Your task to perform on an android device: change the clock display to analog Image 0: 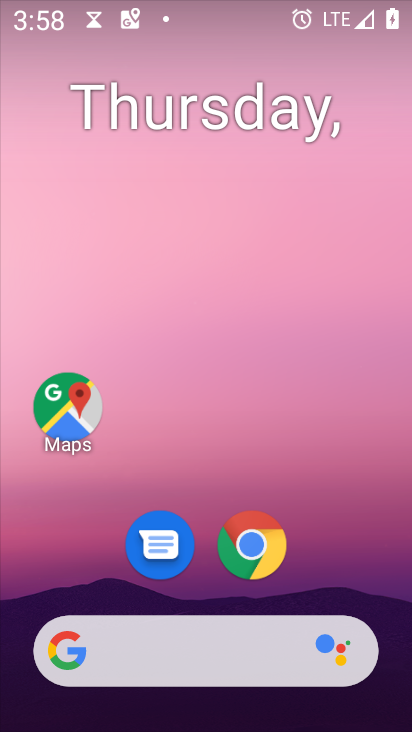
Step 0: drag from (335, 547) to (308, 36)
Your task to perform on an android device: change the clock display to analog Image 1: 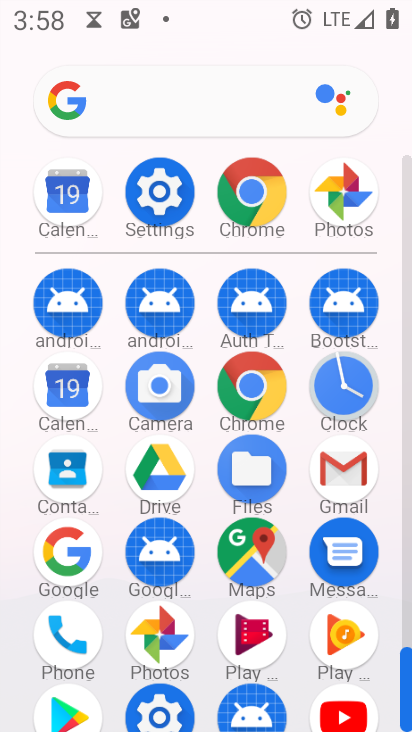
Step 1: click (339, 395)
Your task to perform on an android device: change the clock display to analog Image 2: 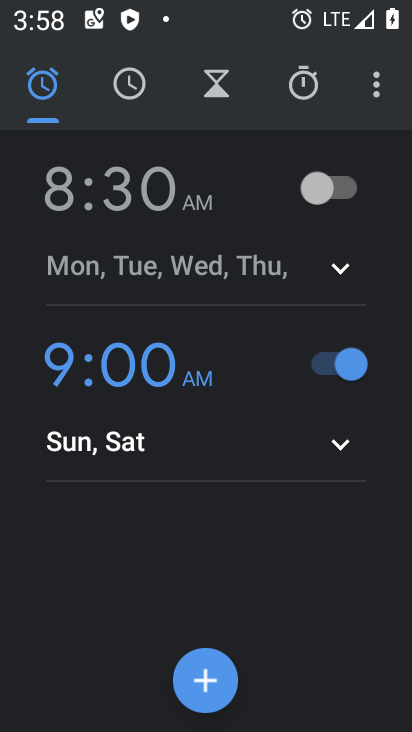
Step 2: click (372, 89)
Your task to perform on an android device: change the clock display to analog Image 3: 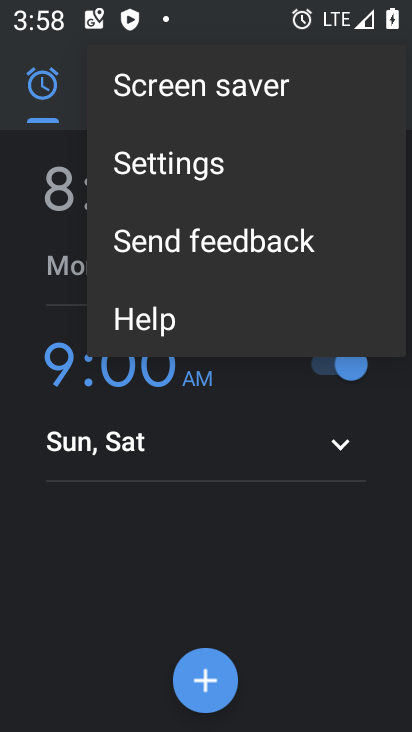
Step 3: click (144, 176)
Your task to perform on an android device: change the clock display to analog Image 4: 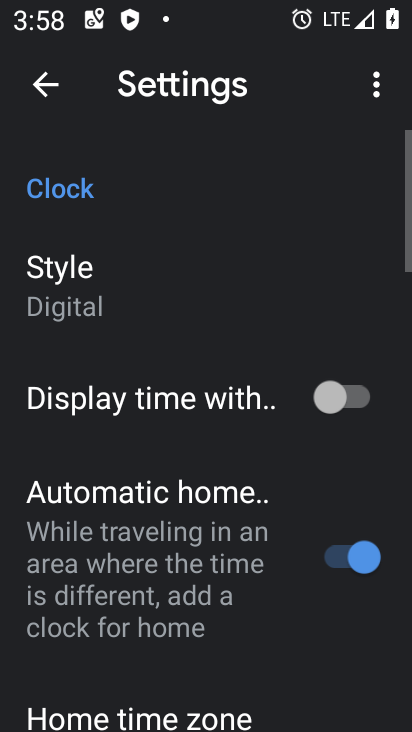
Step 4: click (76, 327)
Your task to perform on an android device: change the clock display to analog Image 5: 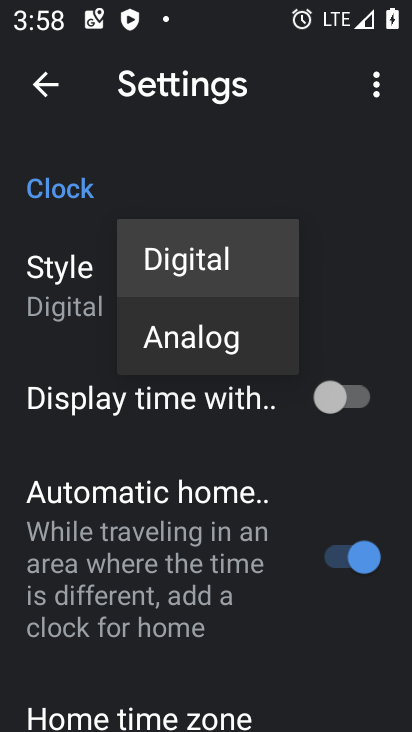
Step 5: click (166, 328)
Your task to perform on an android device: change the clock display to analog Image 6: 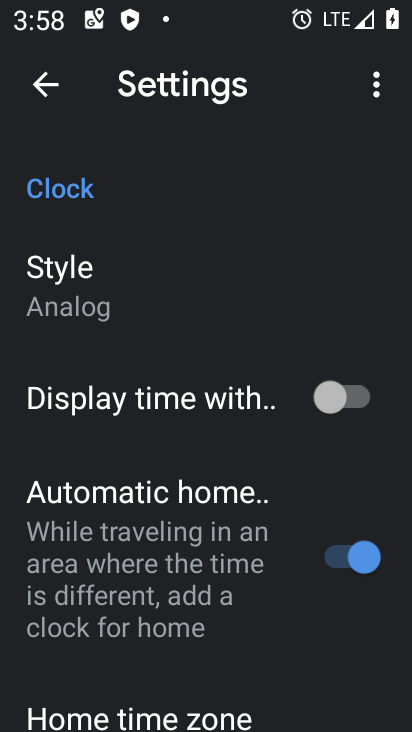
Step 6: task complete